Your task to perform on an android device: Search for sushi restaurants on Maps Image 0: 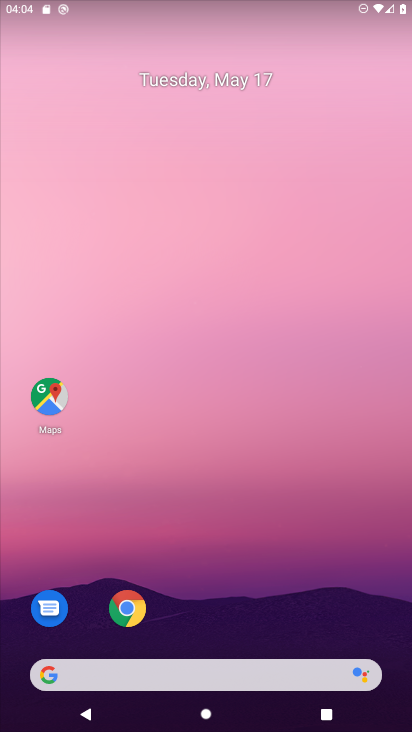
Step 0: click (40, 402)
Your task to perform on an android device: Search for sushi restaurants on Maps Image 1: 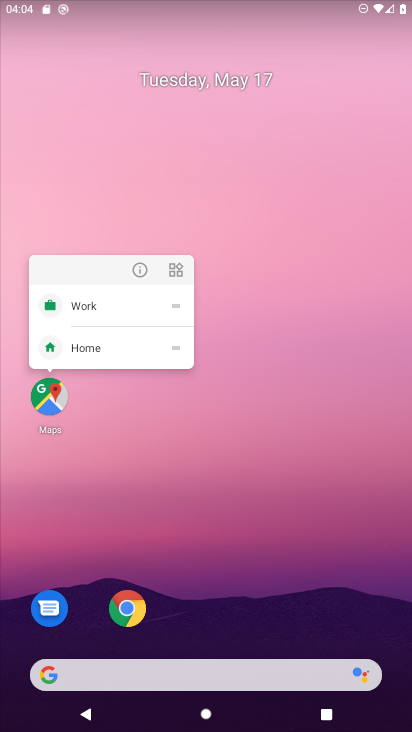
Step 1: click (47, 400)
Your task to perform on an android device: Search for sushi restaurants on Maps Image 2: 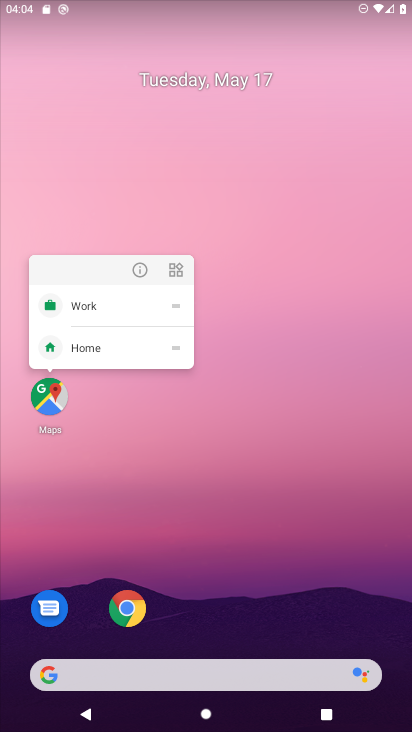
Step 2: click (52, 387)
Your task to perform on an android device: Search for sushi restaurants on Maps Image 3: 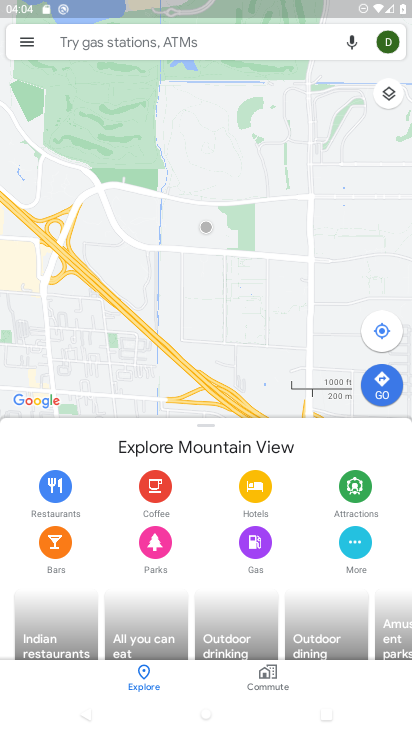
Step 3: click (101, 44)
Your task to perform on an android device: Search for sushi restaurants on Maps Image 4: 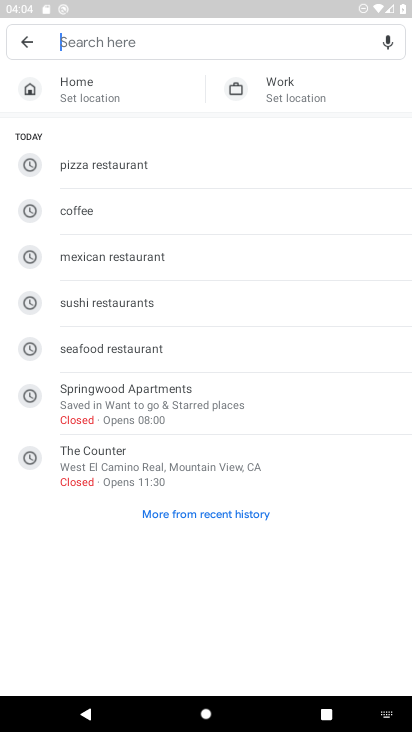
Step 4: click (123, 39)
Your task to perform on an android device: Search for sushi restaurants on Maps Image 5: 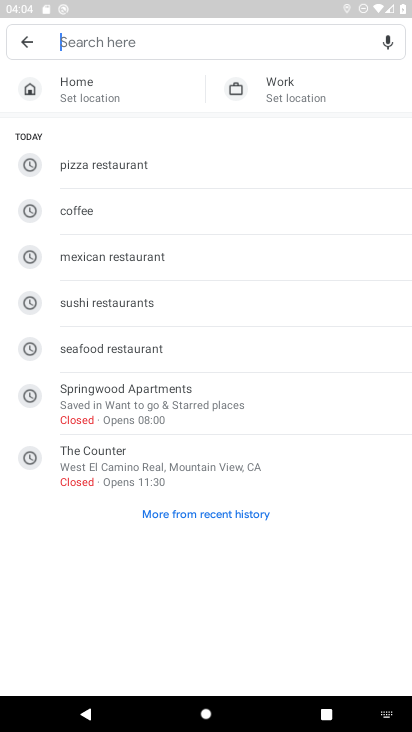
Step 5: click (105, 302)
Your task to perform on an android device: Search for sushi restaurants on Maps Image 6: 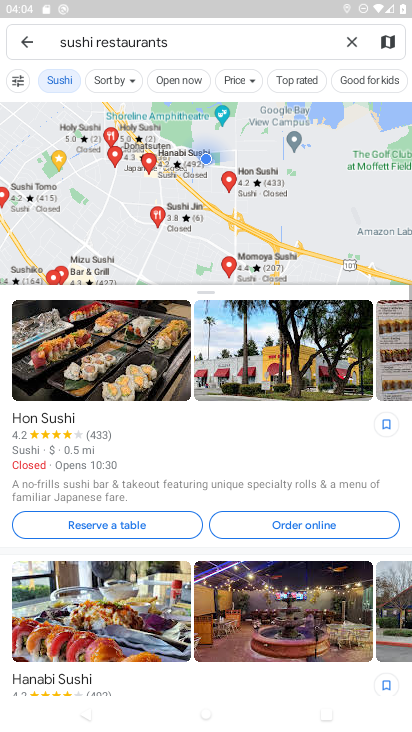
Step 6: task complete